Your task to perform on an android device: toggle wifi Image 0: 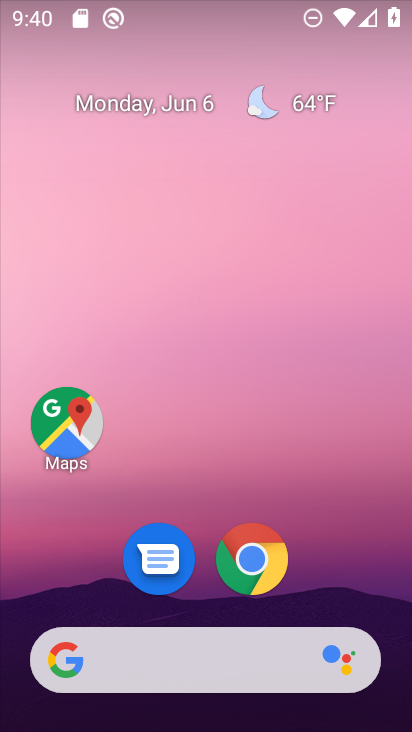
Step 0: drag from (256, 705) to (241, 130)
Your task to perform on an android device: toggle wifi Image 1: 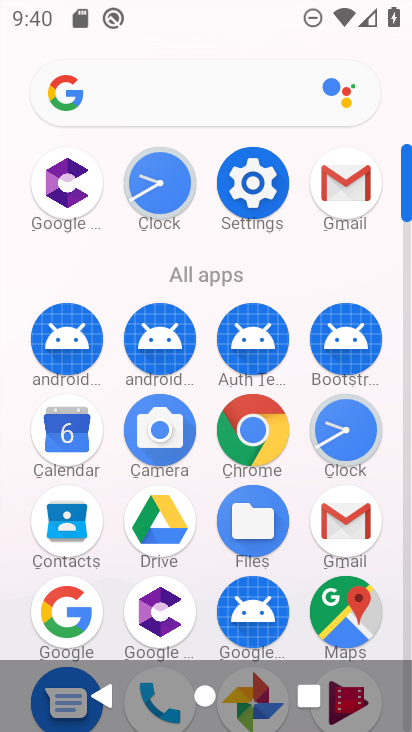
Step 1: click (259, 187)
Your task to perform on an android device: toggle wifi Image 2: 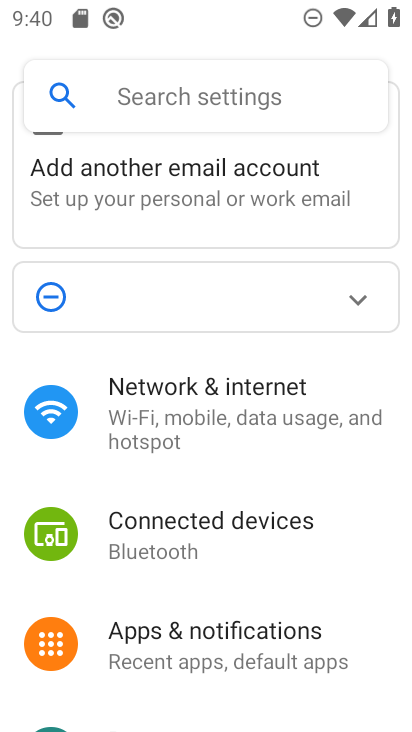
Step 2: click (167, 407)
Your task to perform on an android device: toggle wifi Image 3: 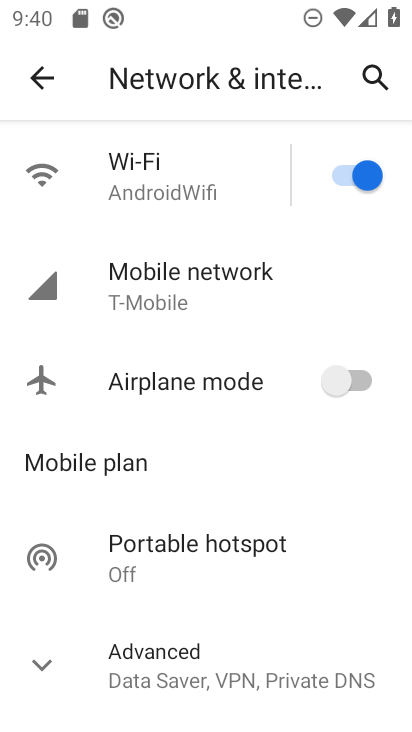
Step 3: click (341, 173)
Your task to perform on an android device: toggle wifi Image 4: 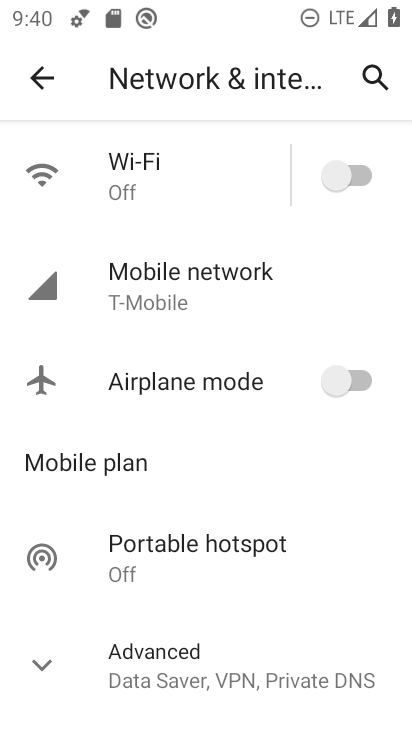
Step 4: task complete